Your task to perform on an android device: turn on the 12-hour format for clock Image 0: 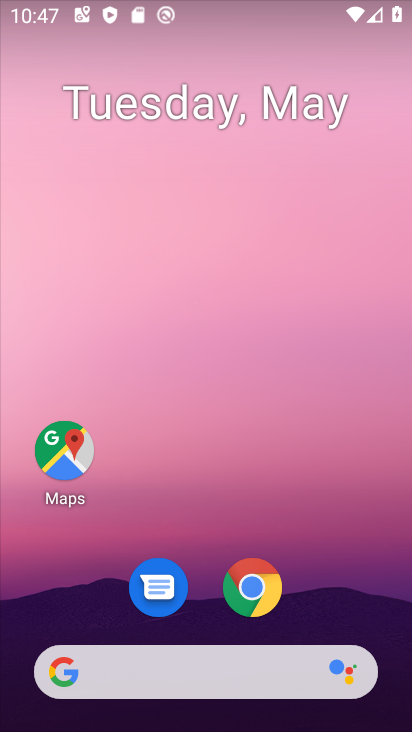
Step 0: drag from (319, 585) to (261, 24)
Your task to perform on an android device: turn on the 12-hour format for clock Image 1: 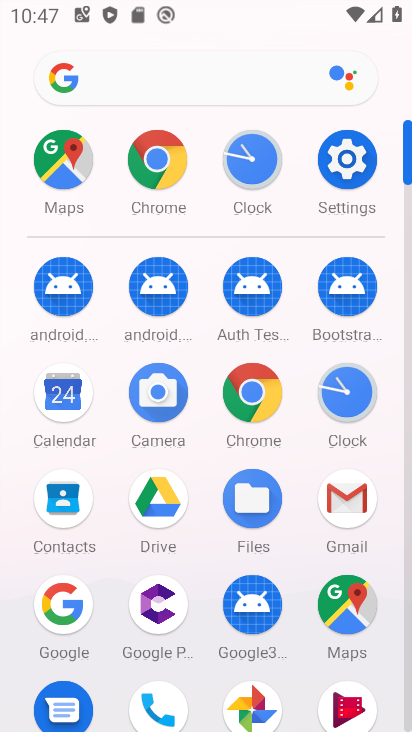
Step 1: drag from (18, 604) to (29, 223)
Your task to perform on an android device: turn on the 12-hour format for clock Image 2: 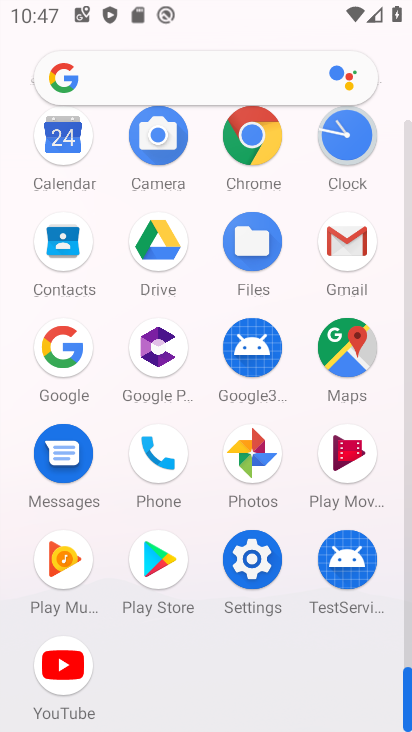
Step 2: click (346, 130)
Your task to perform on an android device: turn on the 12-hour format for clock Image 3: 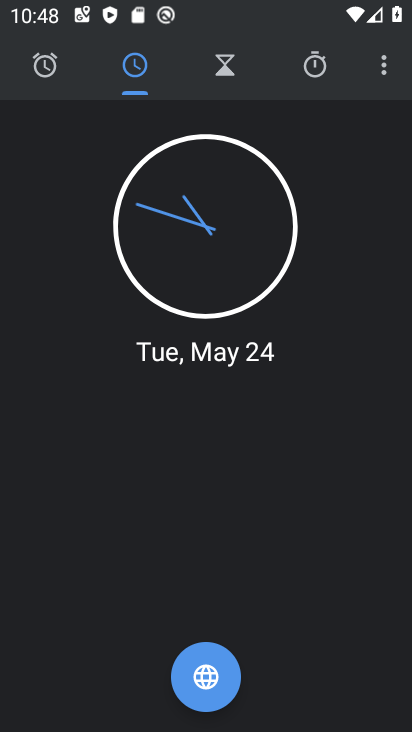
Step 3: drag from (378, 63) to (297, 132)
Your task to perform on an android device: turn on the 12-hour format for clock Image 4: 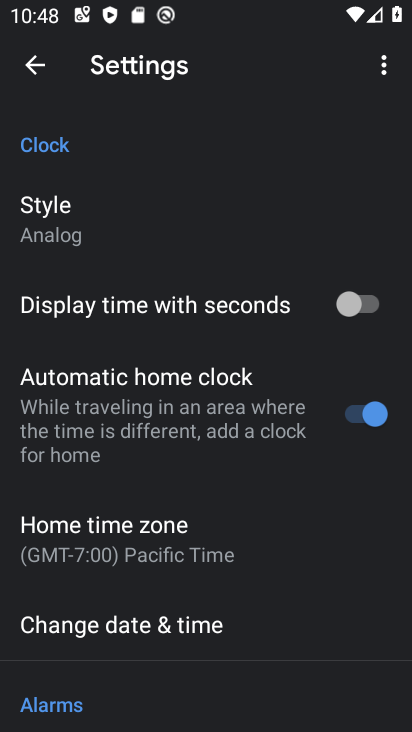
Step 4: click (202, 632)
Your task to perform on an android device: turn on the 12-hour format for clock Image 5: 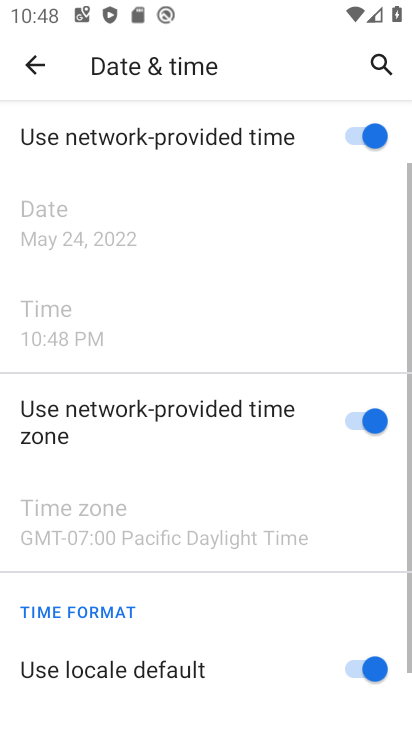
Step 5: drag from (202, 631) to (209, 248)
Your task to perform on an android device: turn on the 12-hour format for clock Image 6: 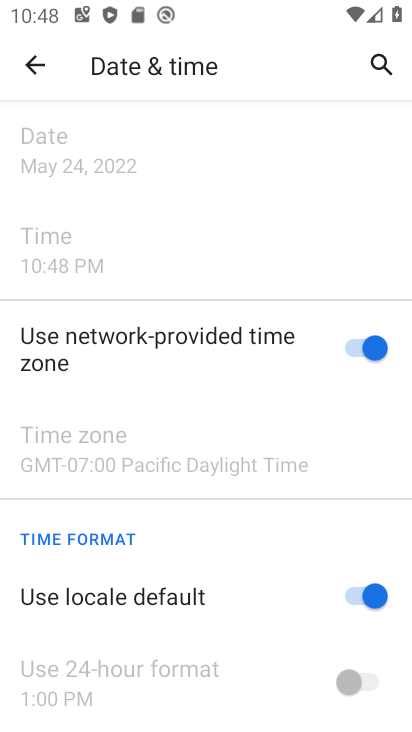
Step 6: click (360, 594)
Your task to perform on an android device: turn on the 12-hour format for clock Image 7: 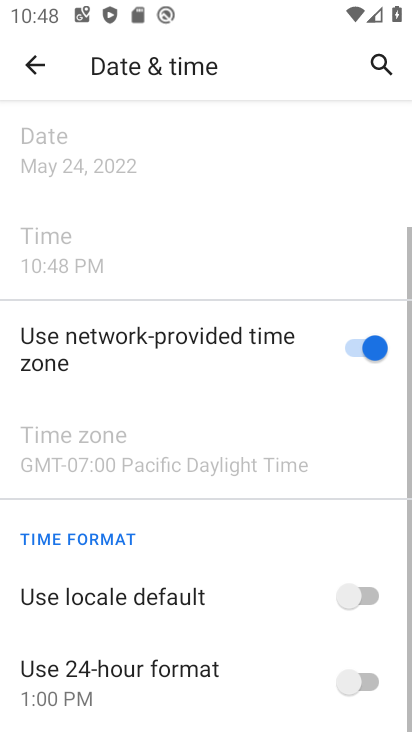
Step 7: click (360, 594)
Your task to perform on an android device: turn on the 12-hour format for clock Image 8: 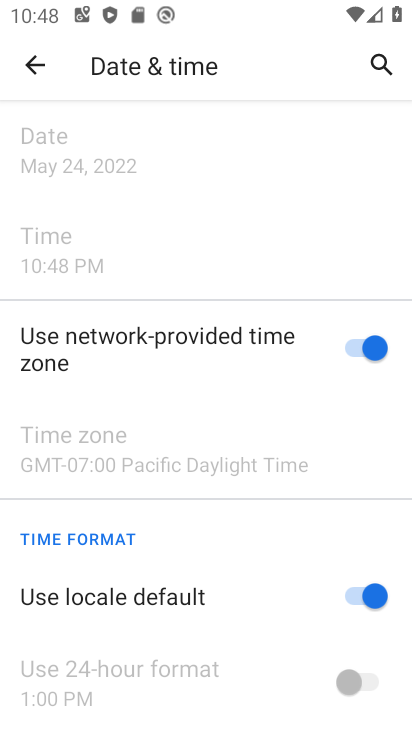
Step 8: task complete